Your task to perform on an android device: Go to Yahoo.com Image 0: 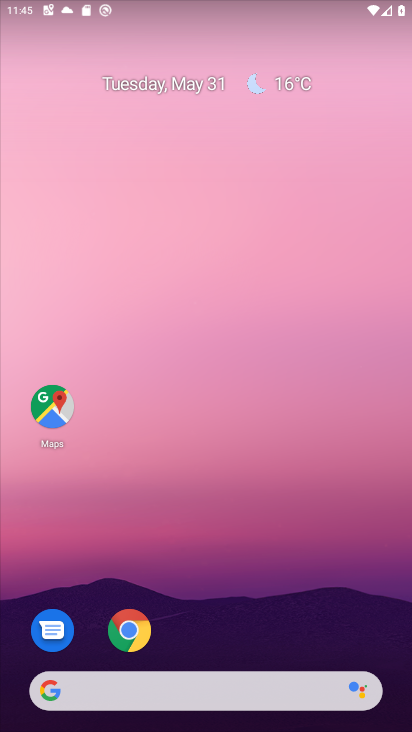
Step 0: click (125, 626)
Your task to perform on an android device: Go to Yahoo.com Image 1: 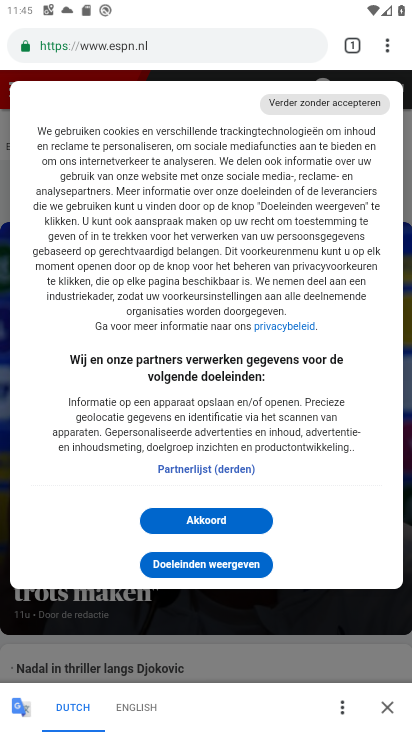
Step 1: click (294, 49)
Your task to perform on an android device: Go to Yahoo.com Image 2: 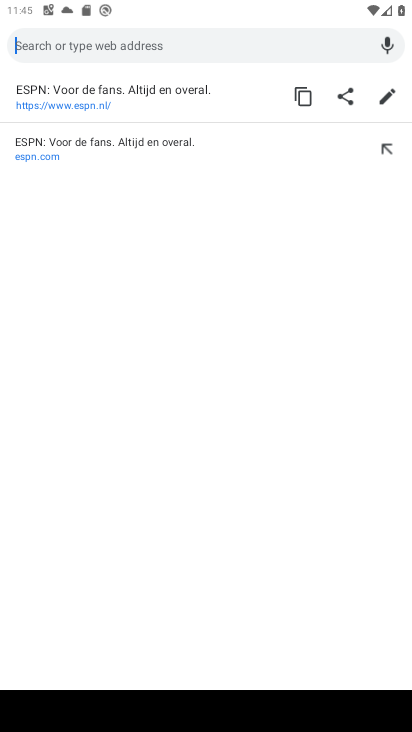
Step 2: type "yahoo.com"
Your task to perform on an android device: Go to Yahoo.com Image 3: 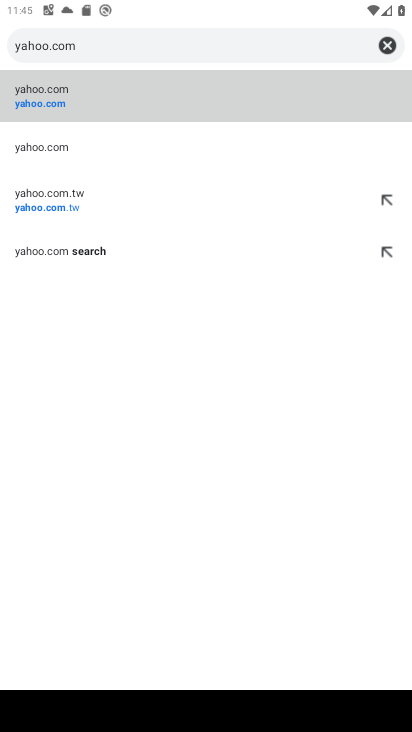
Step 3: click (54, 108)
Your task to perform on an android device: Go to Yahoo.com Image 4: 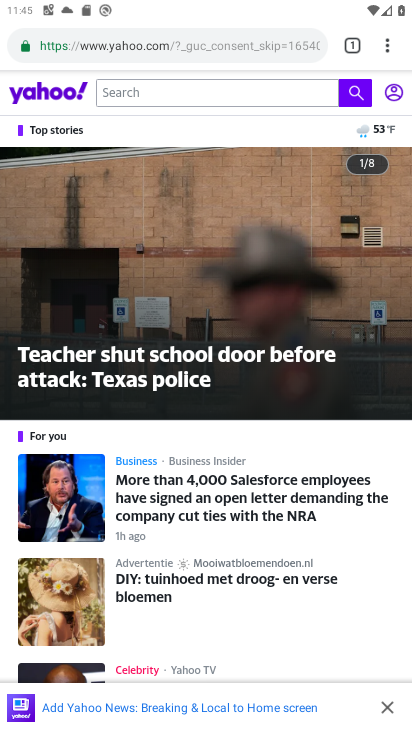
Step 4: task complete